Your task to perform on an android device: turn on wifi Image 0: 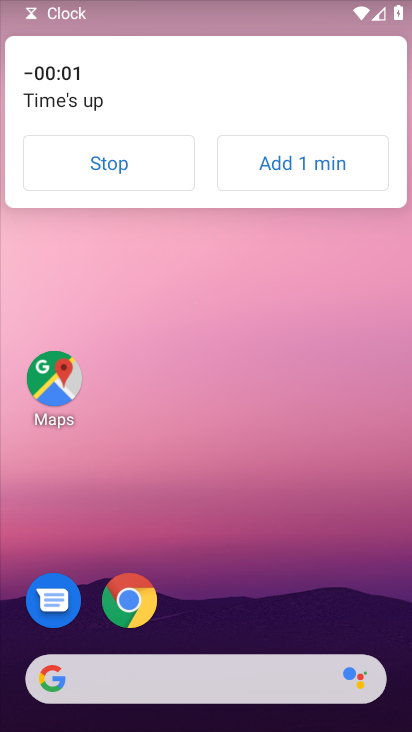
Step 0: drag from (211, 649) to (212, 17)
Your task to perform on an android device: turn on wifi Image 1: 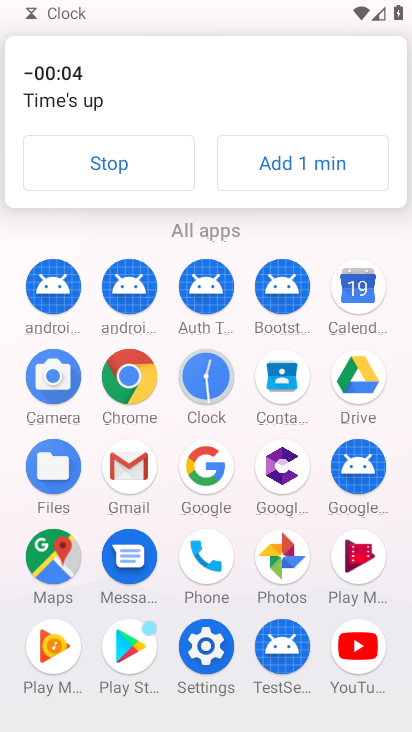
Step 1: click (147, 153)
Your task to perform on an android device: turn on wifi Image 2: 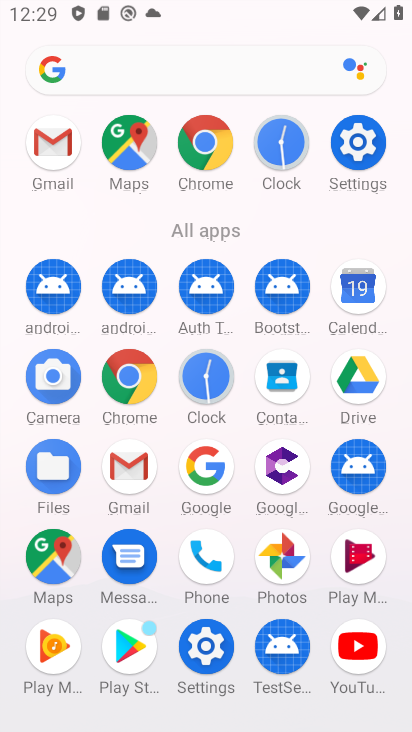
Step 2: click (353, 151)
Your task to perform on an android device: turn on wifi Image 3: 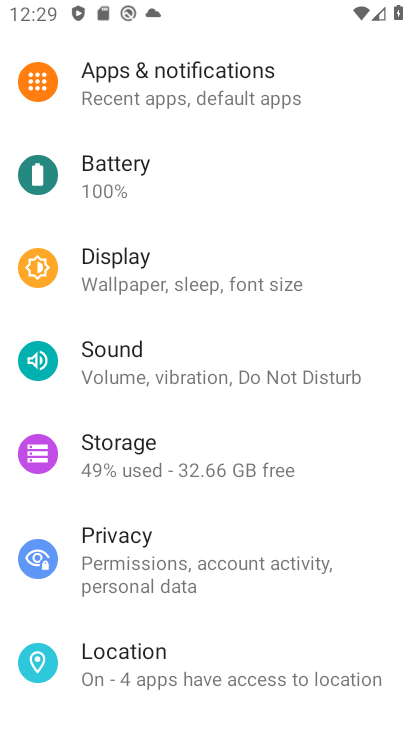
Step 3: drag from (313, 181) to (247, 559)
Your task to perform on an android device: turn on wifi Image 4: 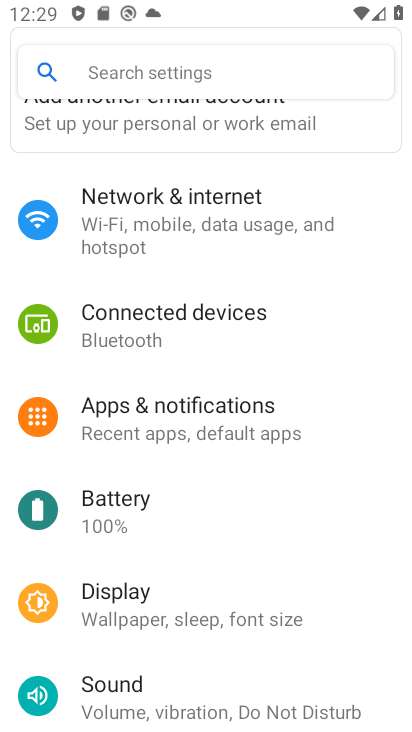
Step 4: click (162, 222)
Your task to perform on an android device: turn on wifi Image 5: 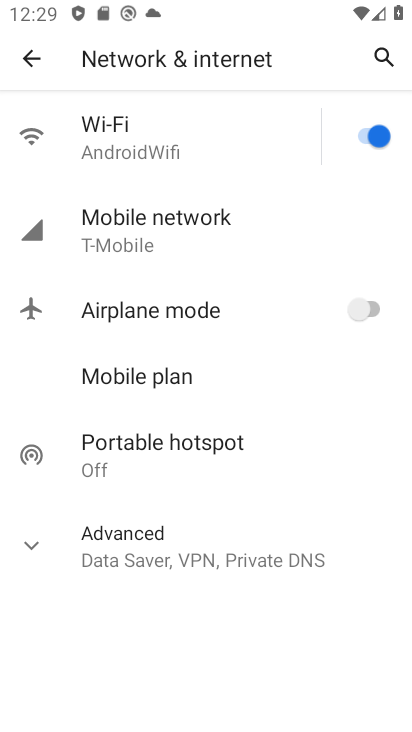
Step 5: task complete